Your task to perform on an android device: Search for vegetarian restaurants on Maps Image 0: 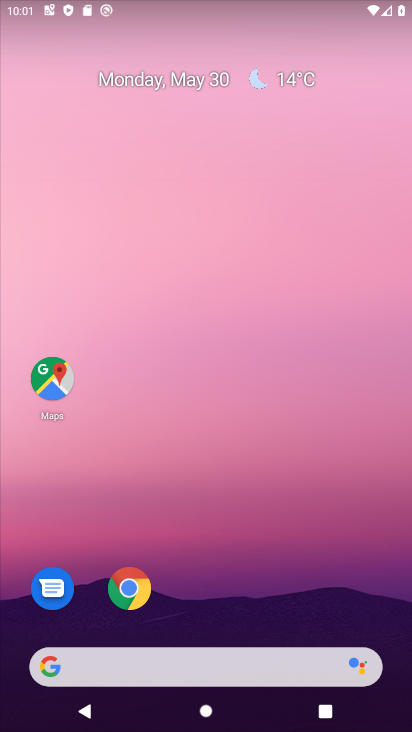
Step 0: click (49, 390)
Your task to perform on an android device: Search for vegetarian restaurants on Maps Image 1: 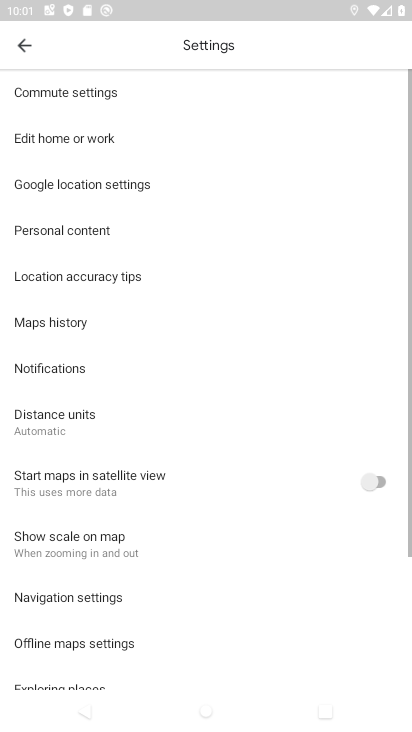
Step 1: click (19, 47)
Your task to perform on an android device: Search for vegetarian restaurants on Maps Image 2: 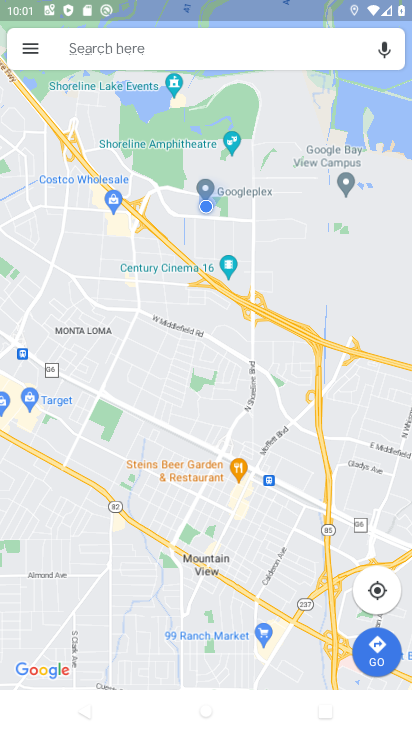
Step 2: click (126, 49)
Your task to perform on an android device: Search for vegetarian restaurants on Maps Image 3: 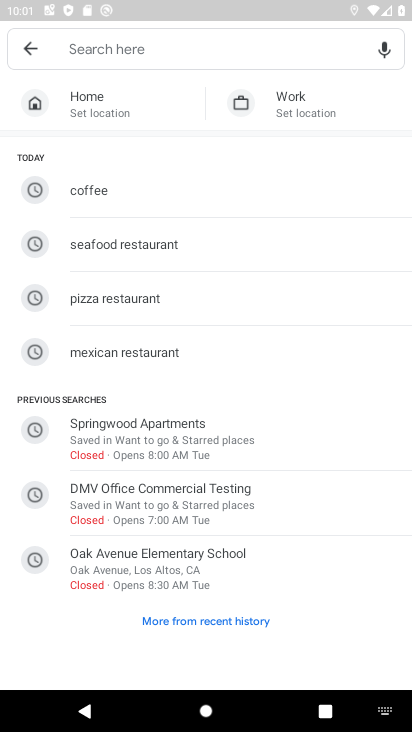
Step 3: type "Vegetarian restaurants"
Your task to perform on an android device: Search for vegetarian restaurants on Maps Image 4: 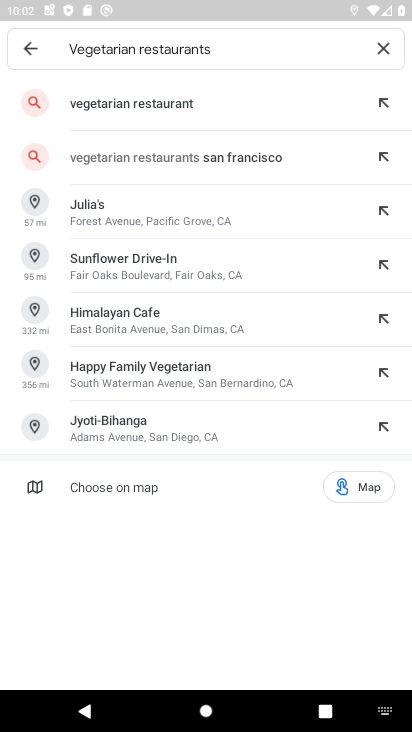
Step 4: click (196, 102)
Your task to perform on an android device: Search for vegetarian restaurants on Maps Image 5: 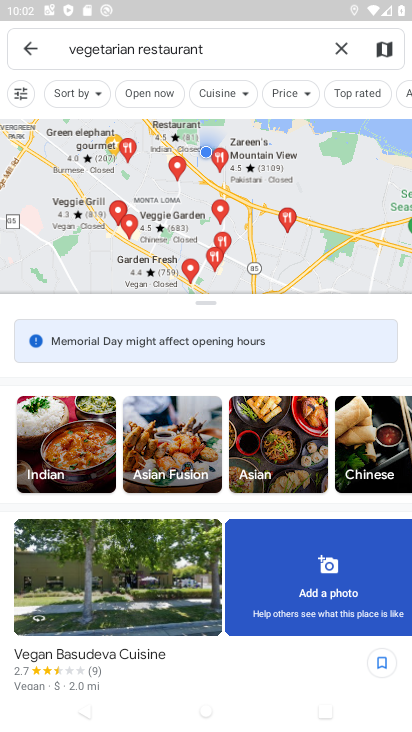
Step 5: task complete